Your task to perform on an android device: Go to Yahoo.com Image 0: 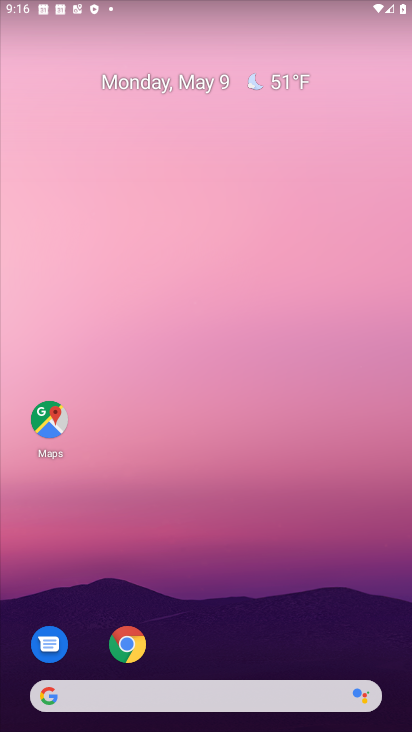
Step 0: drag from (237, 680) to (160, 14)
Your task to perform on an android device: Go to Yahoo.com Image 1: 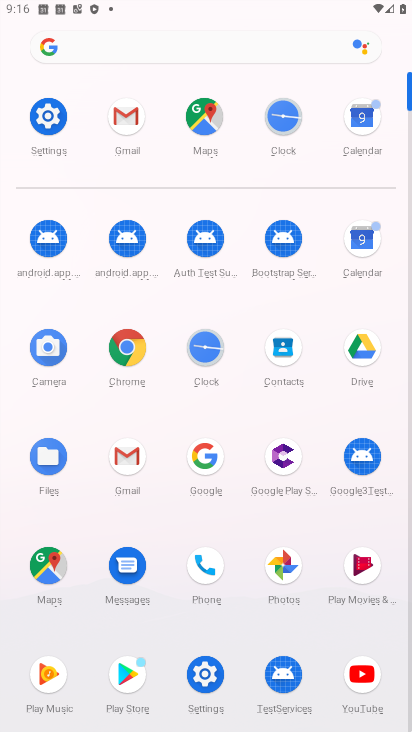
Step 1: click (126, 353)
Your task to perform on an android device: Go to Yahoo.com Image 2: 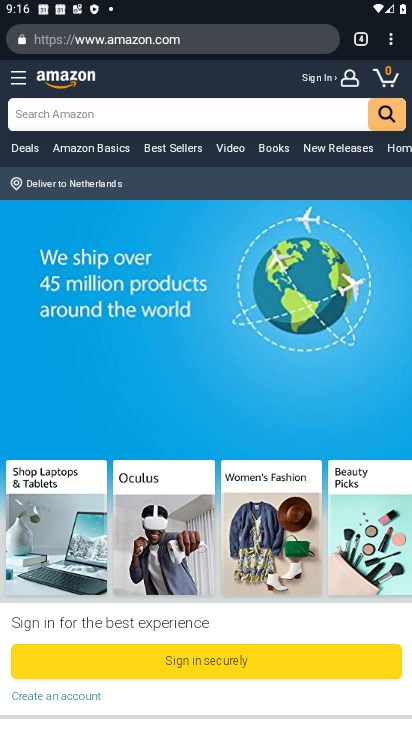
Step 2: click (346, 41)
Your task to perform on an android device: Go to Yahoo.com Image 3: 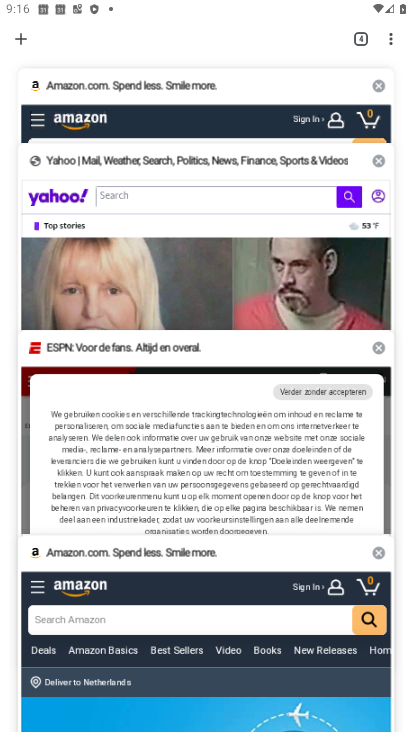
Step 3: click (95, 266)
Your task to perform on an android device: Go to Yahoo.com Image 4: 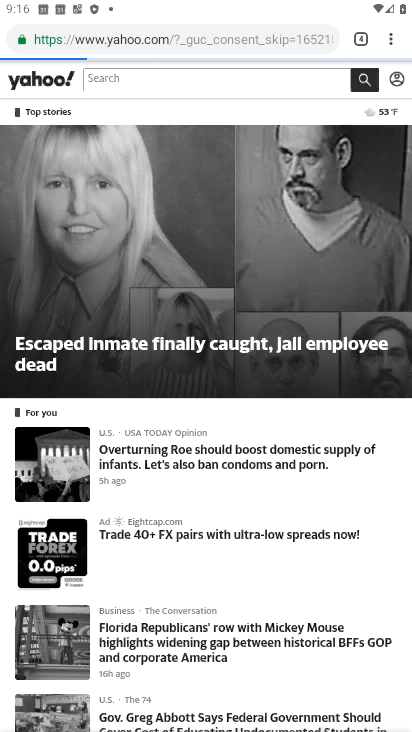
Step 4: task complete